Your task to perform on an android device: What's the weather going to be tomorrow? Image 0: 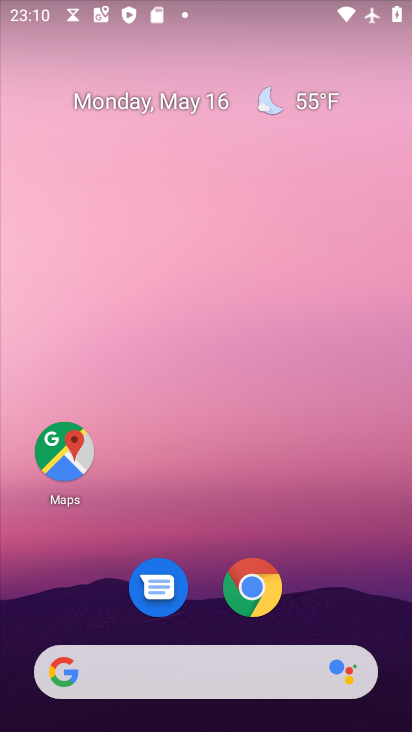
Step 0: drag from (306, 555) to (220, 20)
Your task to perform on an android device: What's the weather going to be tomorrow? Image 1: 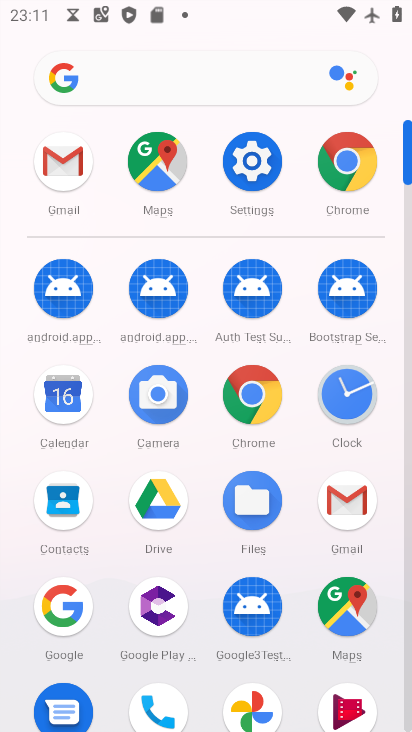
Step 1: drag from (8, 565) to (15, 290)
Your task to perform on an android device: What's the weather going to be tomorrow? Image 2: 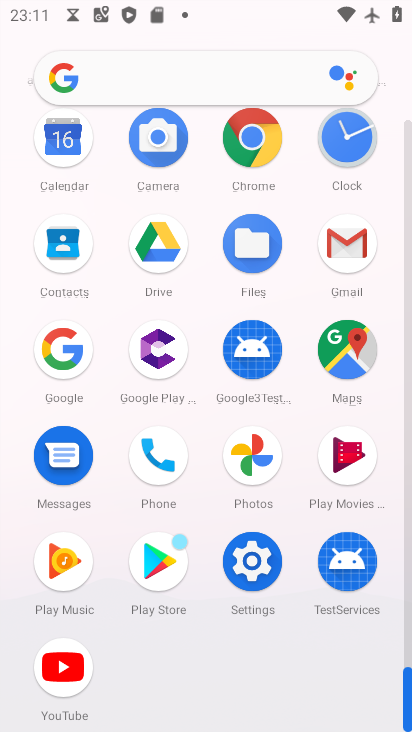
Step 2: click (248, 137)
Your task to perform on an android device: What's the weather going to be tomorrow? Image 3: 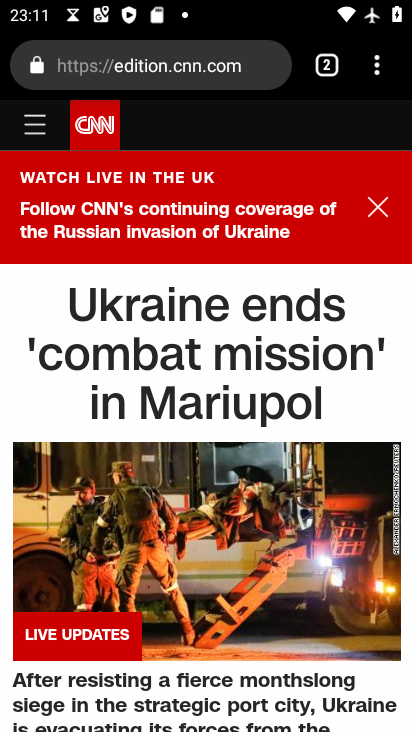
Step 3: click (153, 64)
Your task to perform on an android device: What's the weather going to be tomorrow? Image 4: 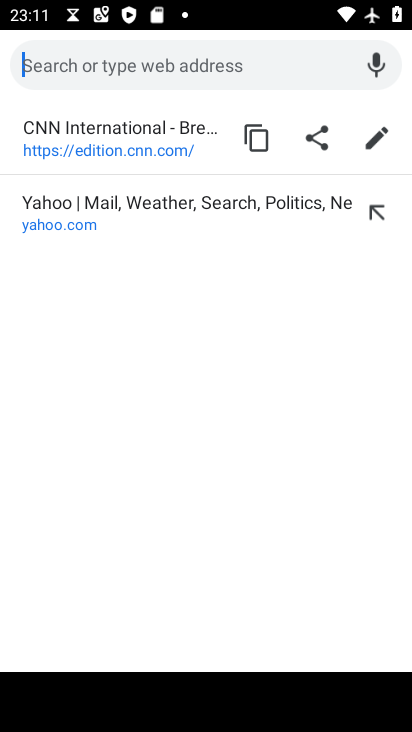
Step 4: type "What's the weather going to be tomorrow?"
Your task to perform on an android device: What's the weather going to be tomorrow? Image 5: 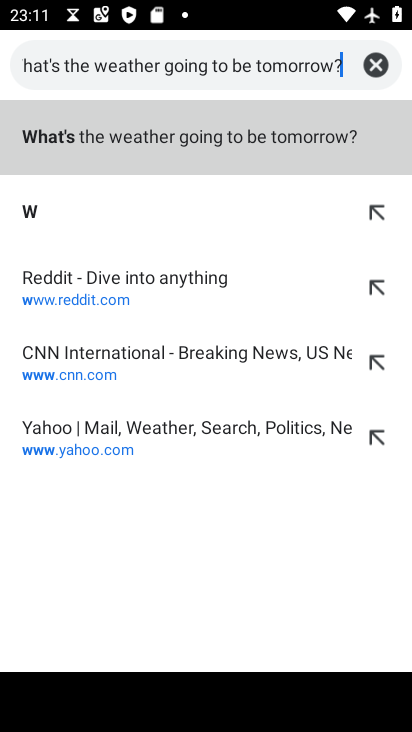
Step 5: type ""
Your task to perform on an android device: What's the weather going to be tomorrow? Image 6: 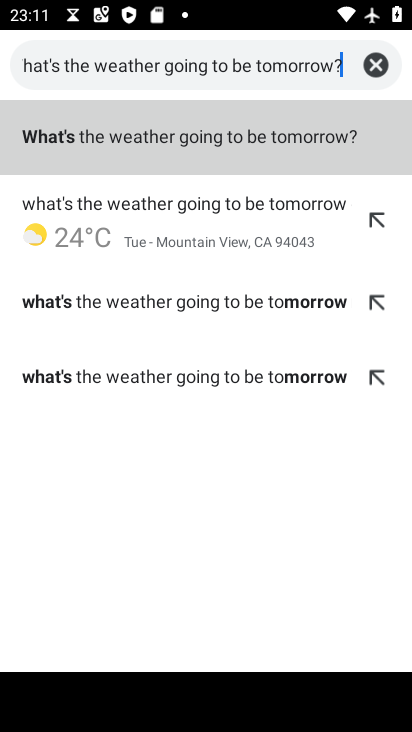
Step 6: click (171, 114)
Your task to perform on an android device: What's the weather going to be tomorrow? Image 7: 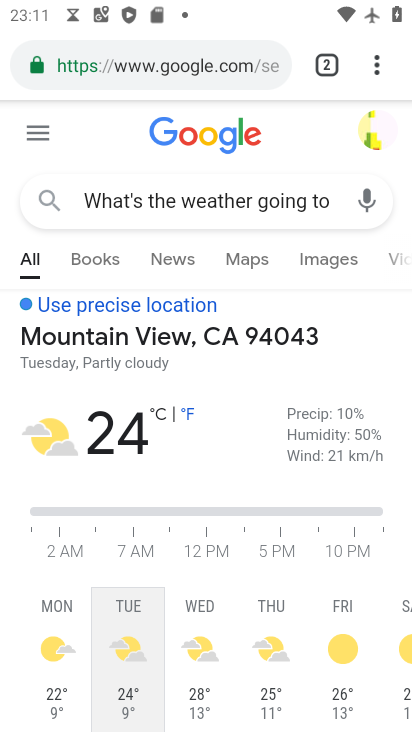
Step 7: task complete